Your task to perform on an android device: Open the calendar app, open the side menu, and click the "Day" option Image 0: 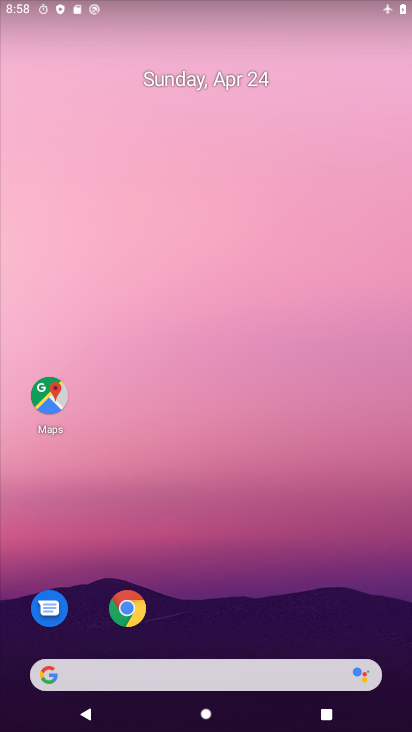
Step 0: drag from (282, 327) to (286, 57)
Your task to perform on an android device: Open the calendar app, open the side menu, and click the "Day" option Image 1: 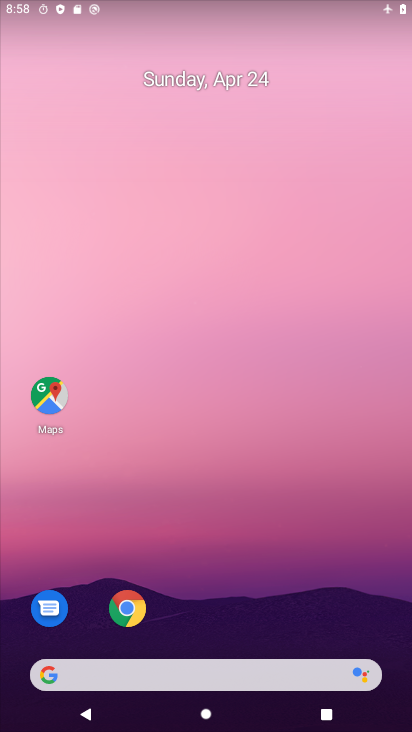
Step 1: drag from (286, 579) to (361, 69)
Your task to perform on an android device: Open the calendar app, open the side menu, and click the "Day" option Image 2: 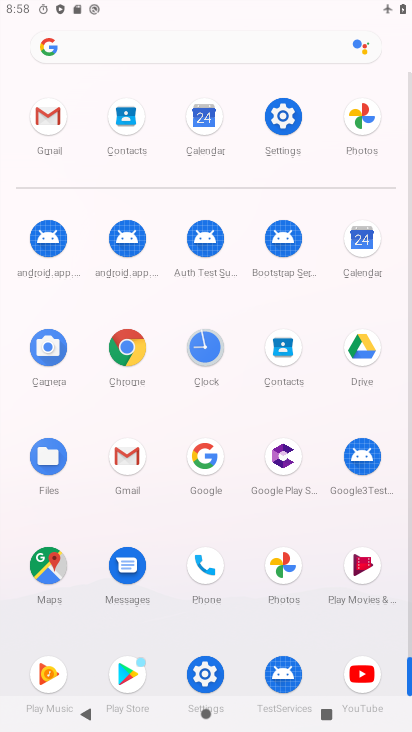
Step 2: click (205, 115)
Your task to perform on an android device: Open the calendar app, open the side menu, and click the "Day" option Image 3: 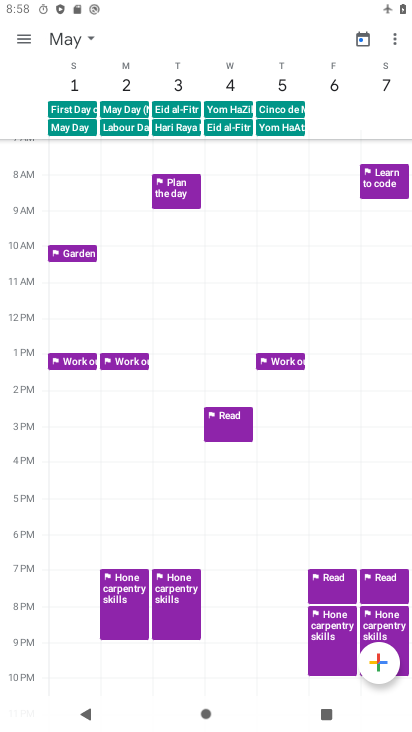
Step 3: click (24, 34)
Your task to perform on an android device: Open the calendar app, open the side menu, and click the "Day" option Image 4: 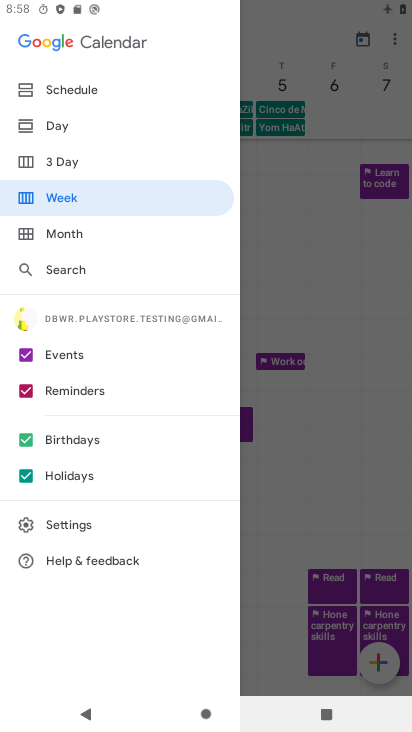
Step 4: click (76, 121)
Your task to perform on an android device: Open the calendar app, open the side menu, and click the "Day" option Image 5: 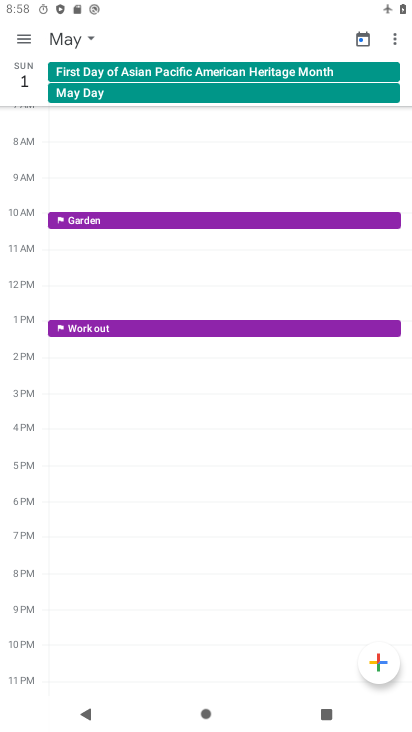
Step 5: task complete